Your task to perform on an android device: Open my contact list Image 0: 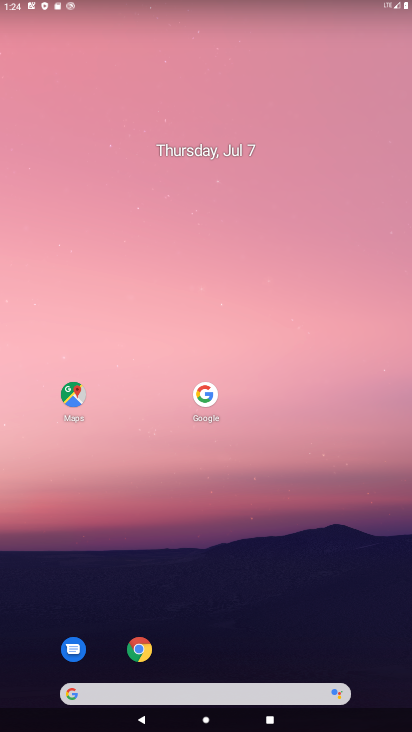
Step 0: press home button
Your task to perform on an android device: Open my contact list Image 1: 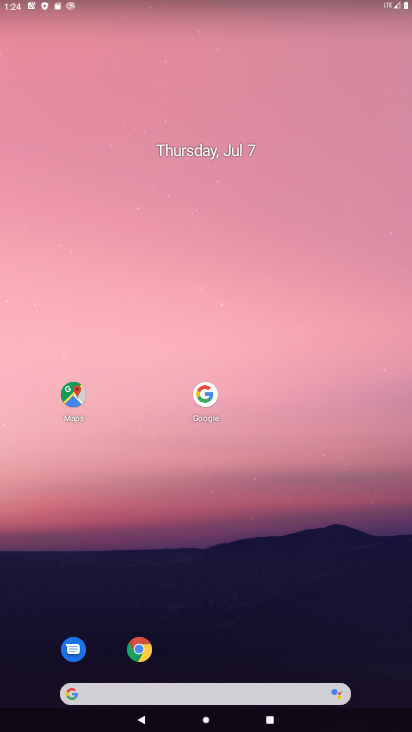
Step 1: drag from (325, 608) to (358, 217)
Your task to perform on an android device: Open my contact list Image 2: 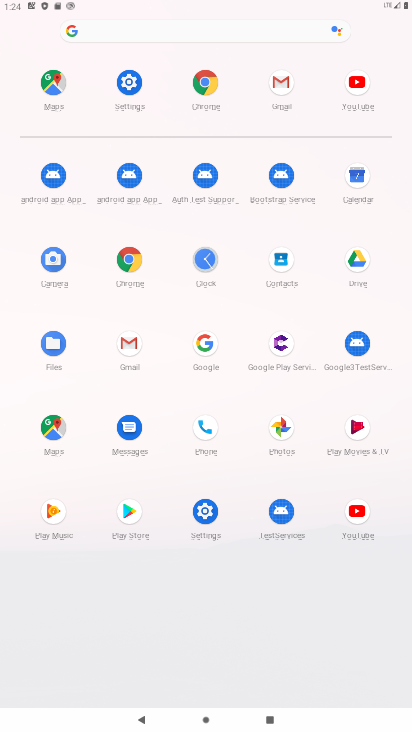
Step 2: click (281, 257)
Your task to perform on an android device: Open my contact list Image 3: 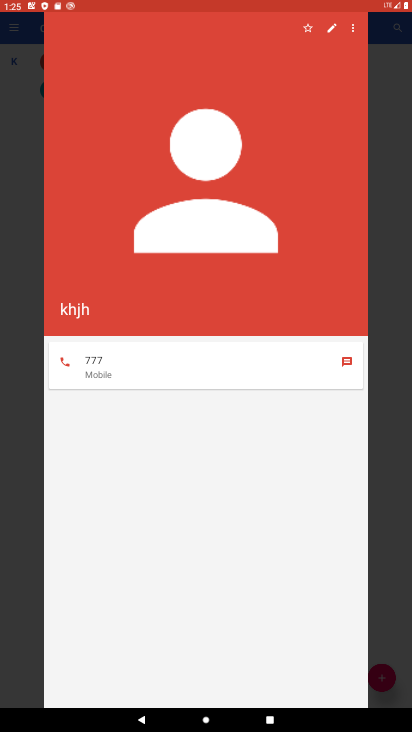
Step 3: task complete